Your task to perform on an android device: delete the emails in spam in the gmail app Image 0: 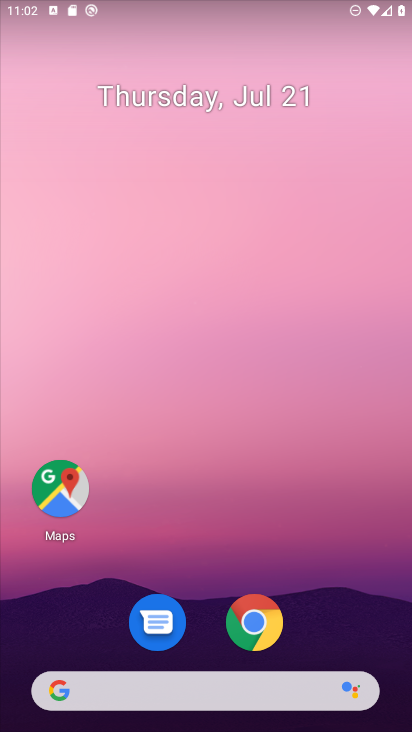
Step 0: drag from (242, 686) to (207, 33)
Your task to perform on an android device: delete the emails in spam in the gmail app Image 1: 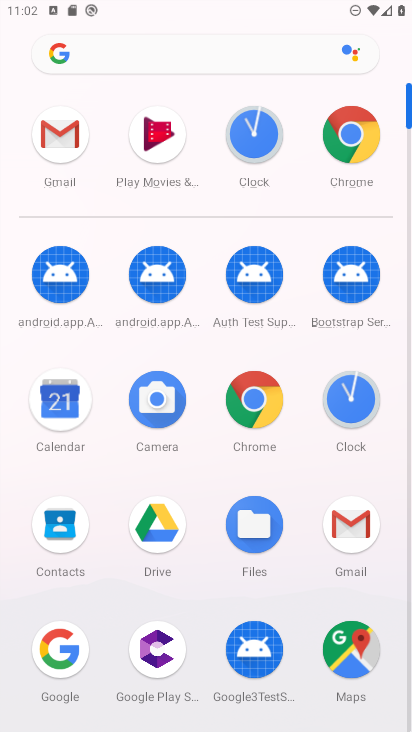
Step 1: click (341, 514)
Your task to perform on an android device: delete the emails in spam in the gmail app Image 2: 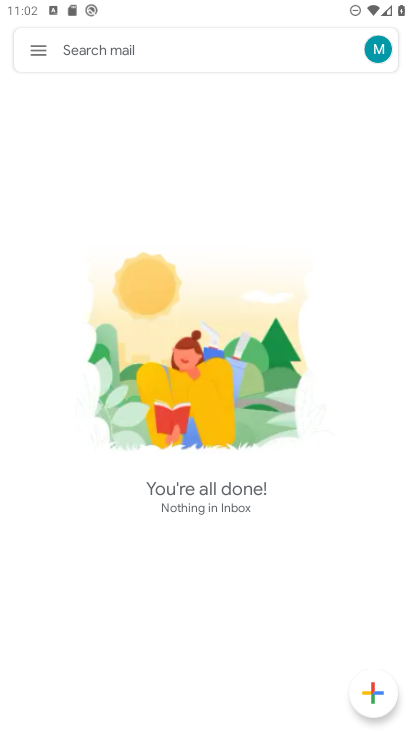
Step 2: click (39, 53)
Your task to perform on an android device: delete the emails in spam in the gmail app Image 3: 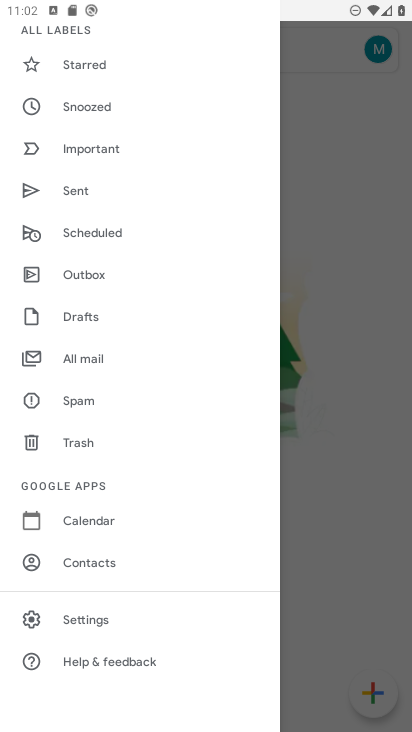
Step 3: click (90, 396)
Your task to perform on an android device: delete the emails in spam in the gmail app Image 4: 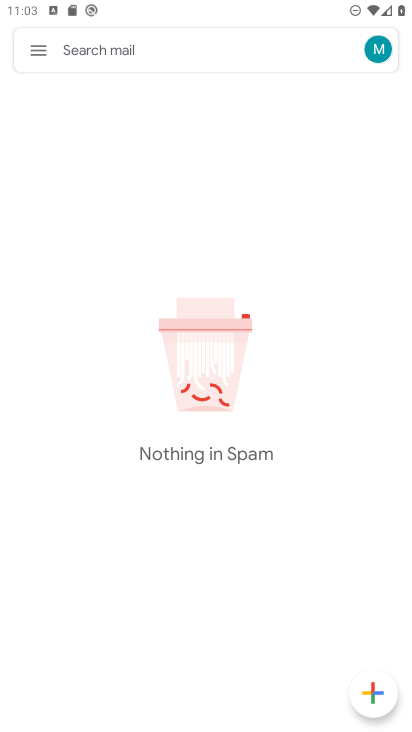
Step 4: click (44, 44)
Your task to perform on an android device: delete the emails in spam in the gmail app Image 5: 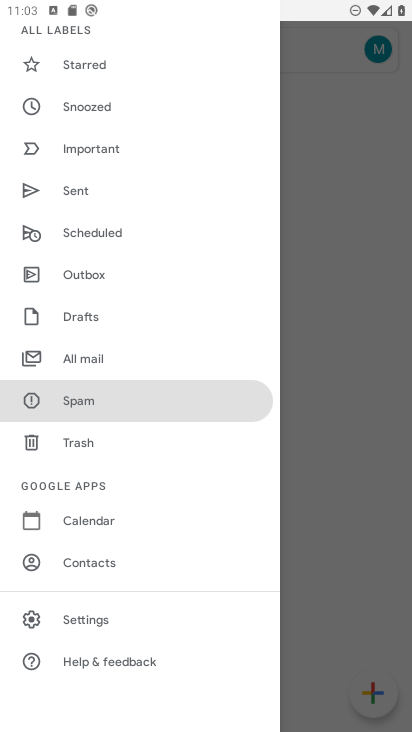
Step 5: click (108, 397)
Your task to perform on an android device: delete the emails in spam in the gmail app Image 6: 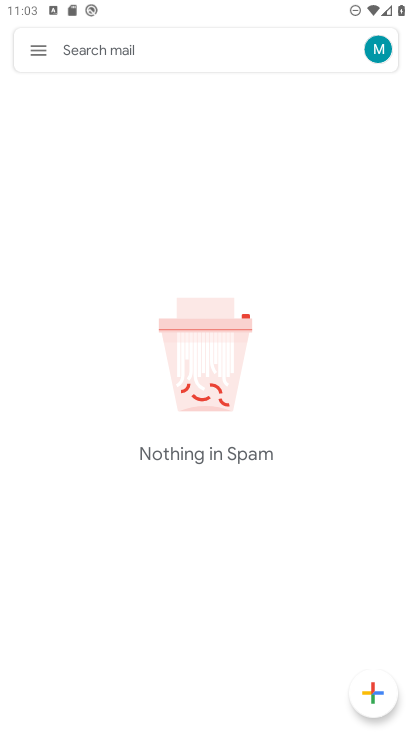
Step 6: task complete